Your task to perform on an android device: Set the phone to "Do not disturb". Image 0: 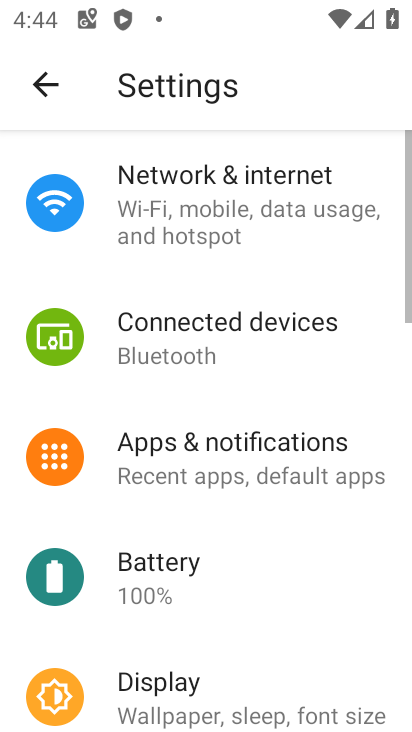
Step 0: drag from (276, 493) to (332, 198)
Your task to perform on an android device: Set the phone to "Do not disturb". Image 1: 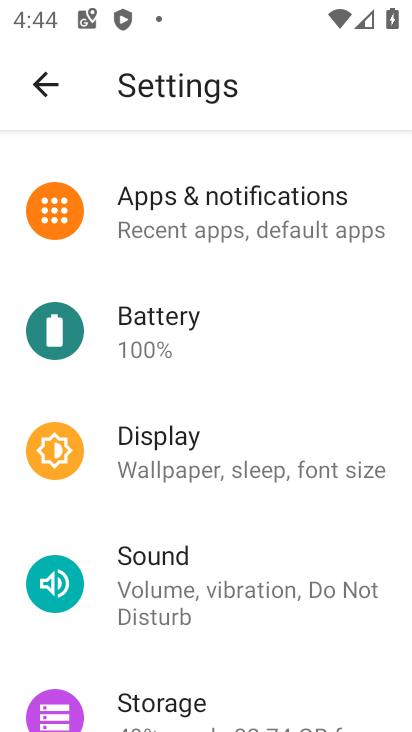
Step 1: drag from (222, 236) to (310, 731)
Your task to perform on an android device: Set the phone to "Do not disturb". Image 2: 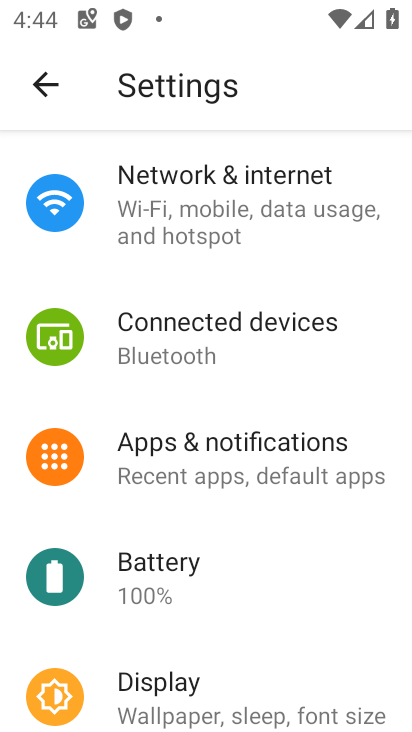
Step 2: click (198, 220)
Your task to perform on an android device: Set the phone to "Do not disturb". Image 3: 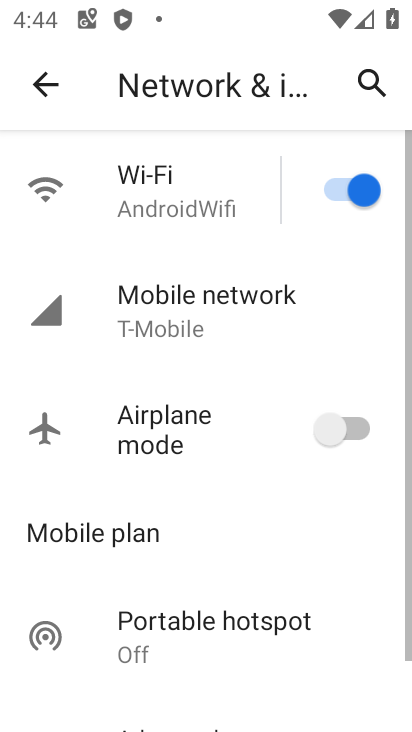
Step 3: drag from (191, 520) to (262, 559)
Your task to perform on an android device: Set the phone to "Do not disturb". Image 4: 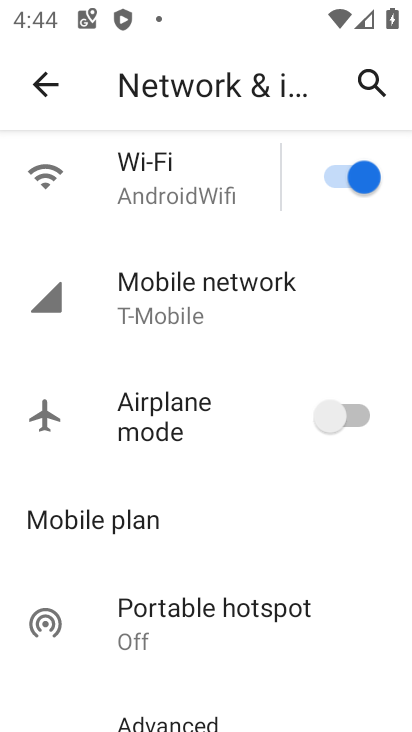
Step 4: drag from (247, 0) to (276, 610)
Your task to perform on an android device: Set the phone to "Do not disturb". Image 5: 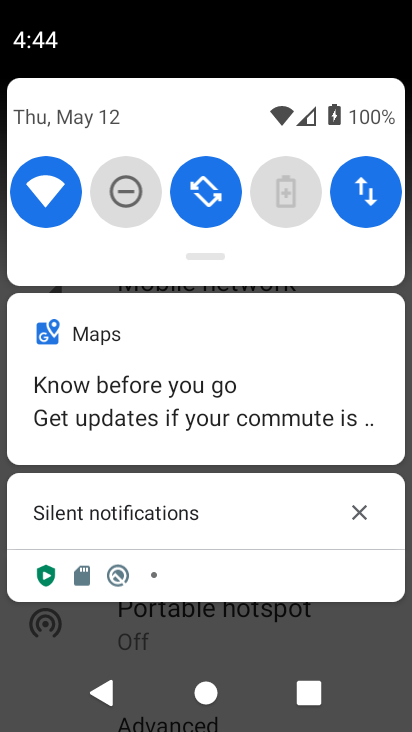
Step 5: click (128, 181)
Your task to perform on an android device: Set the phone to "Do not disturb". Image 6: 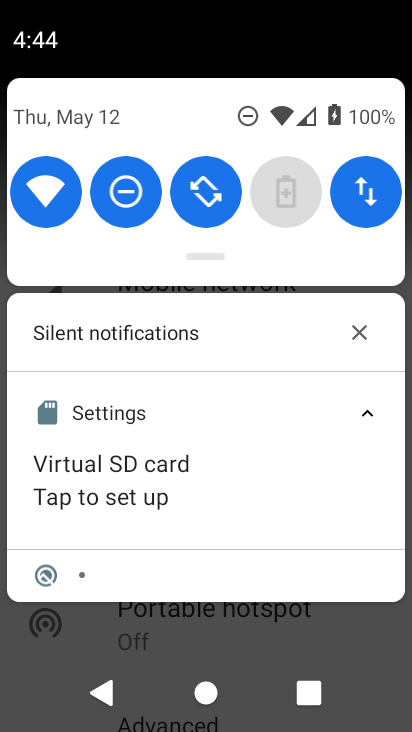
Step 6: task complete